Your task to perform on an android device: install app "Lyft - Rideshare, Bikes, Scooters & Transit" Image 0: 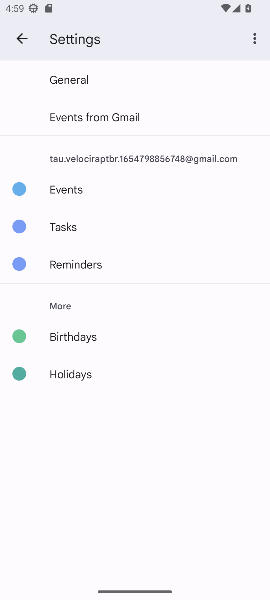
Step 0: press home button
Your task to perform on an android device: install app "Lyft - Rideshare, Bikes, Scooters & Transit" Image 1: 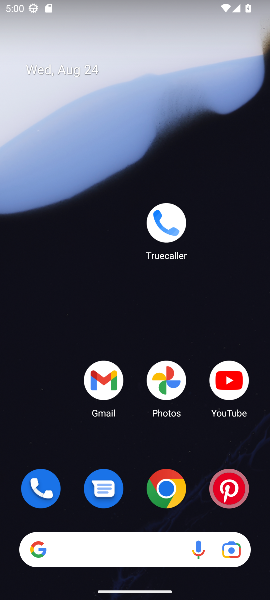
Step 1: drag from (135, 521) to (131, 27)
Your task to perform on an android device: install app "Lyft - Rideshare, Bikes, Scooters & Transit" Image 2: 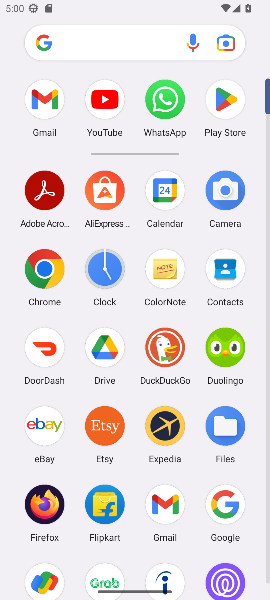
Step 2: click (216, 108)
Your task to perform on an android device: install app "Lyft - Rideshare, Bikes, Scooters & Transit" Image 3: 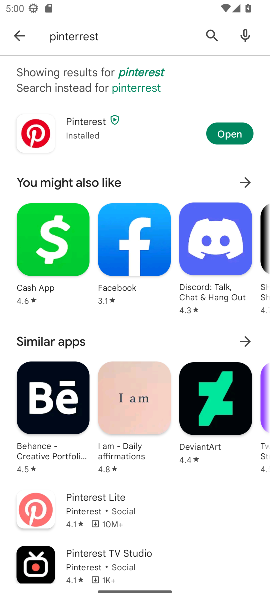
Step 3: click (202, 31)
Your task to perform on an android device: install app "Lyft - Rideshare, Bikes, Scooters & Transit" Image 4: 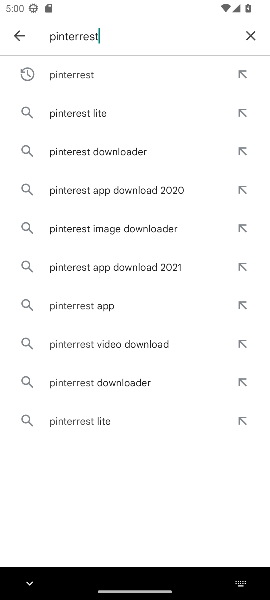
Step 4: click (246, 32)
Your task to perform on an android device: install app "Lyft - Rideshare, Bikes, Scooters & Transit" Image 5: 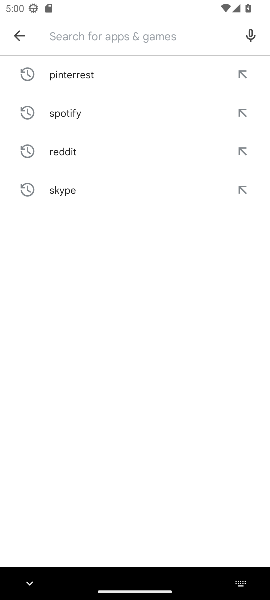
Step 5: type "lyst"
Your task to perform on an android device: install app "Lyft - Rideshare, Bikes, Scooters & Transit" Image 6: 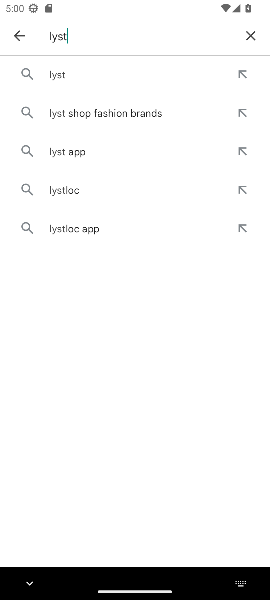
Step 6: click (61, 87)
Your task to perform on an android device: install app "Lyft - Rideshare, Bikes, Scooters & Transit" Image 7: 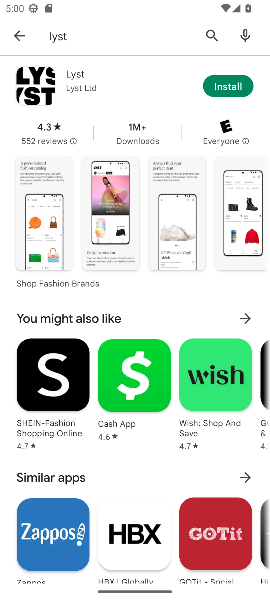
Step 7: click (214, 80)
Your task to perform on an android device: install app "Lyft - Rideshare, Bikes, Scooters & Transit" Image 8: 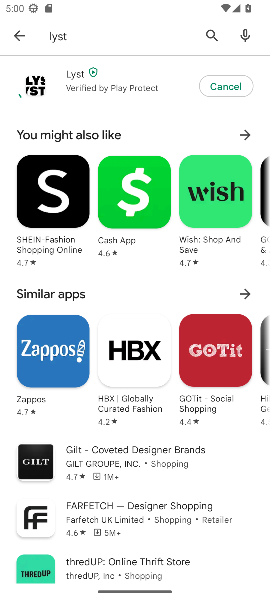
Step 8: task complete